Your task to perform on an android device: change the upload size in google photos Image 0: 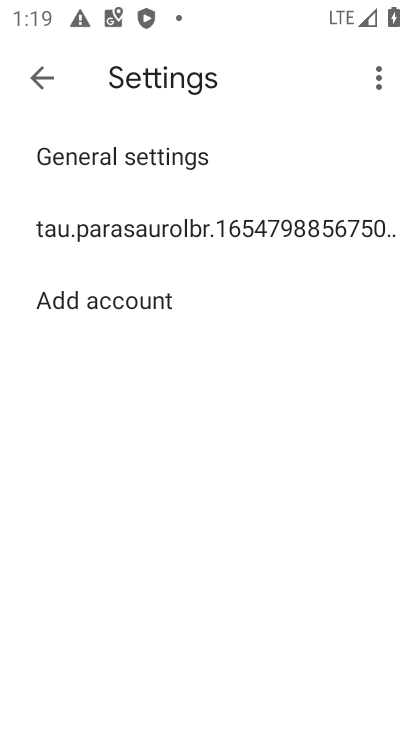
Step 0: press home button
Your task to perform on an android device: change the upload size in google photos Image 1: 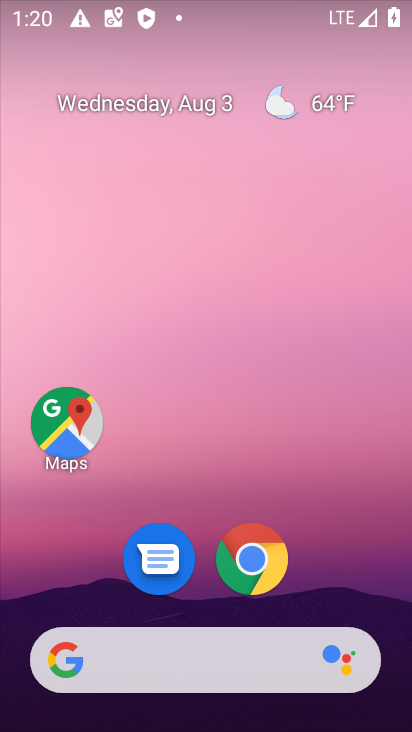
Step 1: drag from (205, 545) to (202, 27)
Your task to perform on an android device: change the upload size in google photos Image 2: 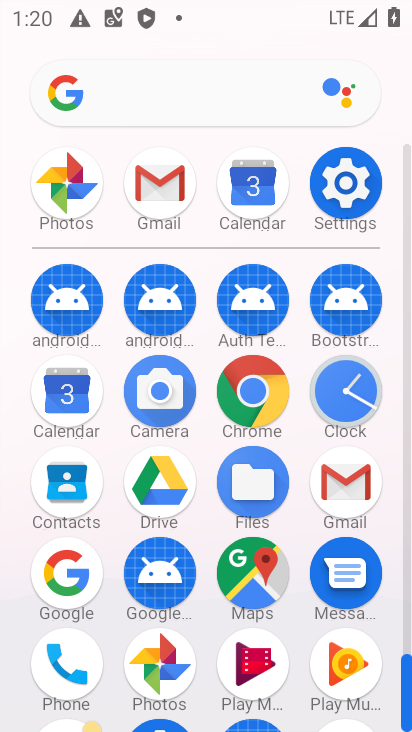
Step 2: click (170, 664)
Your task to perform on an android device: change the upload size in google photos Image 3: 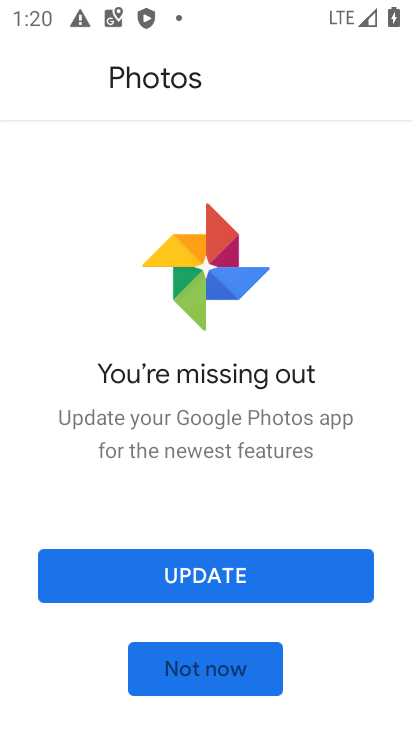
Step 3: task complete